Your task to perform on an android device: turn off translation in the chrome app Image 0: 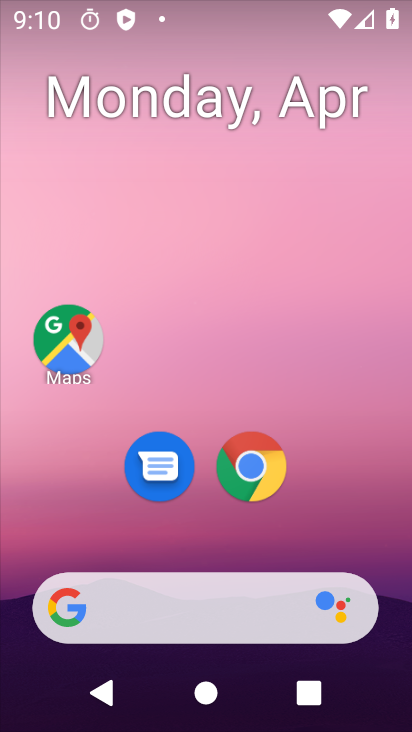
Step 0: drag from (201, 526) to (194, 6)
Your task to perform on an android device: turn off translation in the chrome app Image 1: 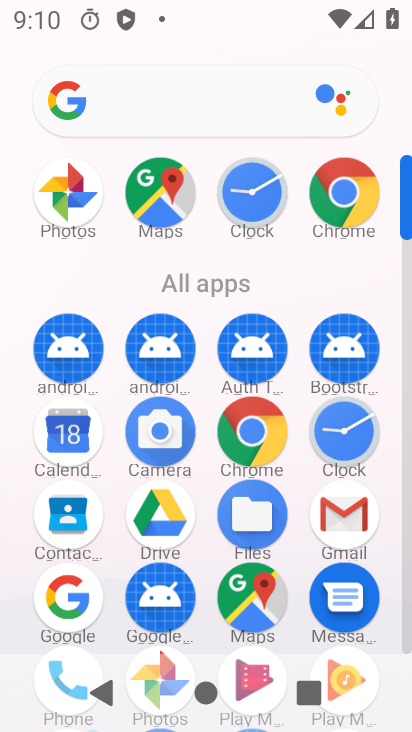
Step 1: click (338, 199)
Your task to perform on an android device: turn off translation in the chrome app Image 2: 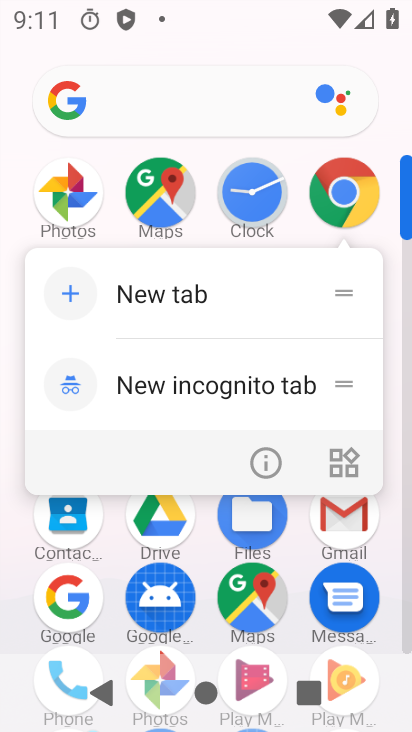
Step 2: click (332, 186)
Your task to perform on an android device: turn off translation in the chrome app Image 3: 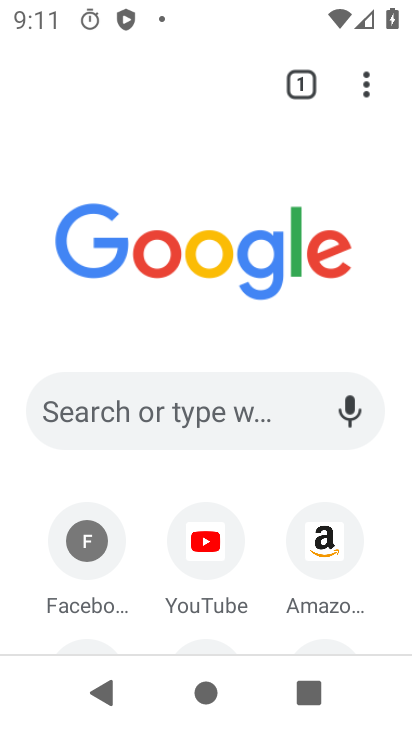
Step 3: click (356, 90)
Your task to perform on an android device: turn off translation in the chrome app Image 4: 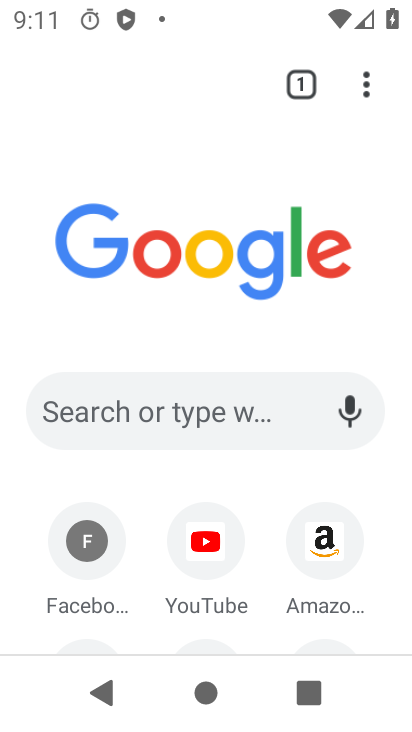
Step 4: click (372, 83)
Your task to perform on an android device: turn off translation in the chrome app Image 5: 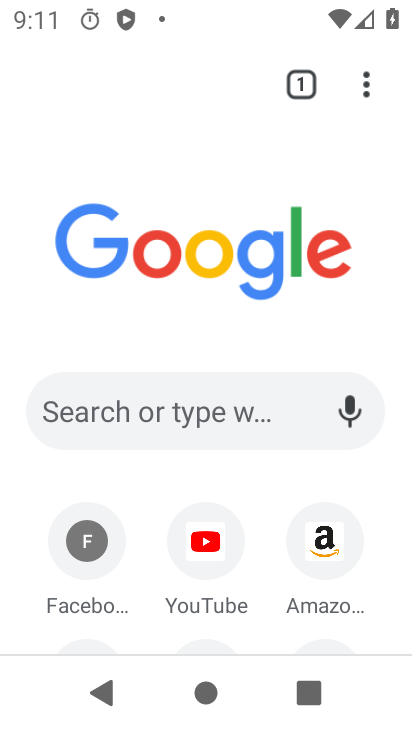
Step 5: click (361, 94)
Your task to perform on an android device: turn off translation in the chrome app Image 6: 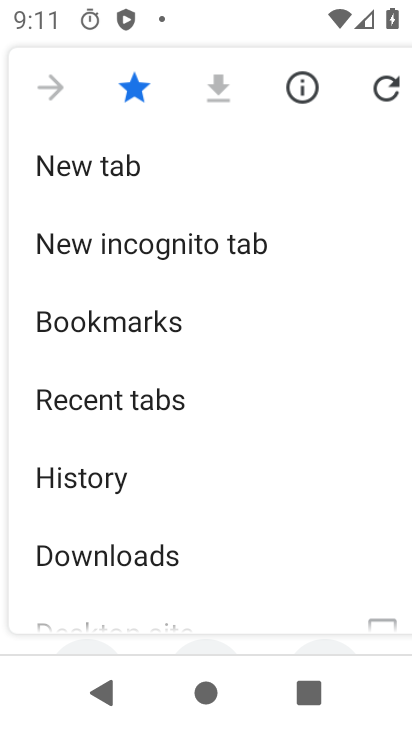
Step 6: drag from (207, 539) to (181, 55)
Your task to perform on an android device: turn off translation in the chrome app Image 7: 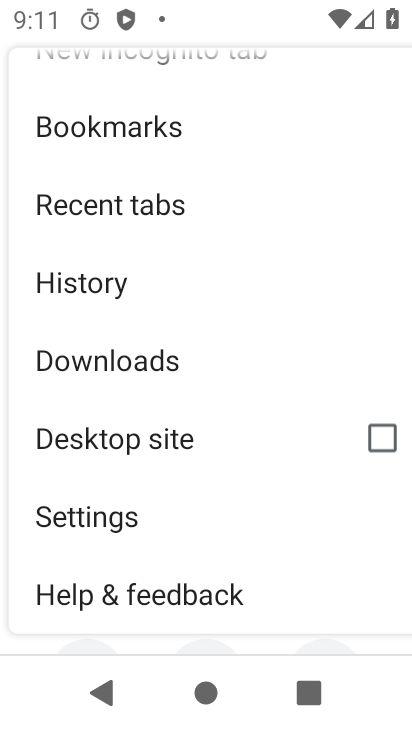
Step 7: click (118, 531)
Your task to perform on an android device: turn off translation in the chrome app Image 8: 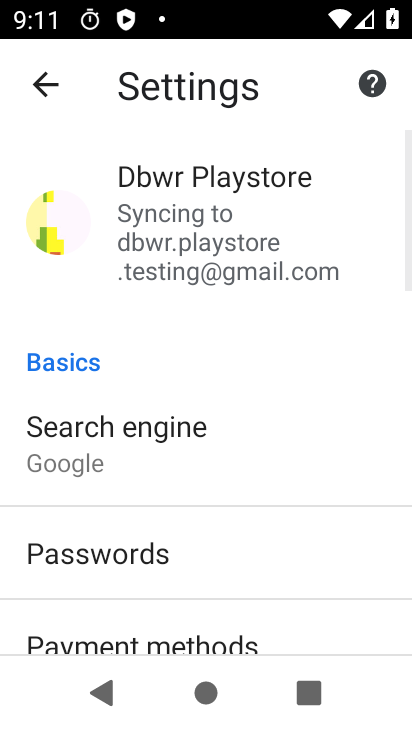
Step 8: drag from (192, 544) to (177, 91)
Your task to perform on an android device: turn off translation in the chrome app Image 9: 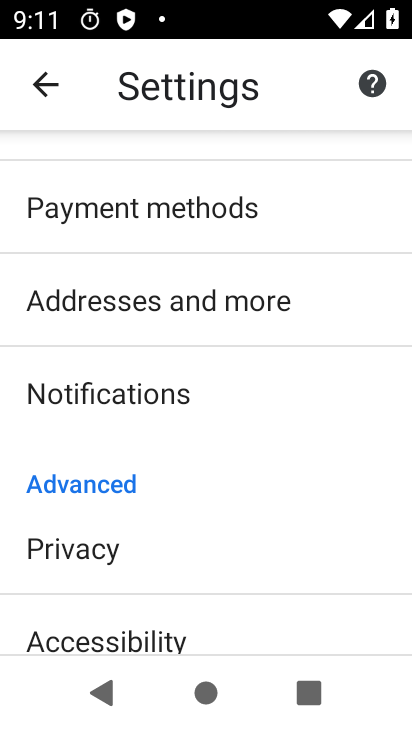
Step 9: click (203, 516)
Your task to perform on an android device: turn off translation in the chrome app Image 10: 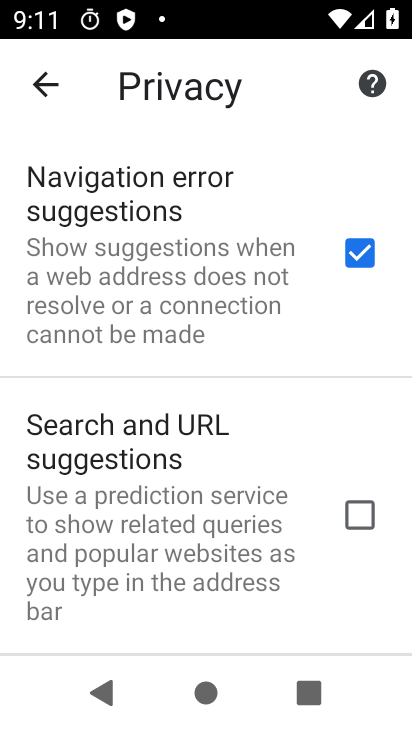
Step 10: drag from (191, 541) to (142, 89)
Your task to perform on an android device: turn off translation in the chrome app Image 11: 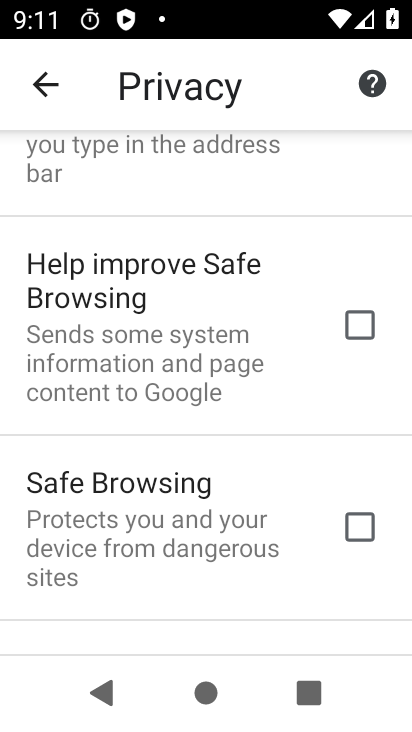
Step 11: click (43, 83)
Your task to perform on an android device: turn off translation in the chrome app Image 12: 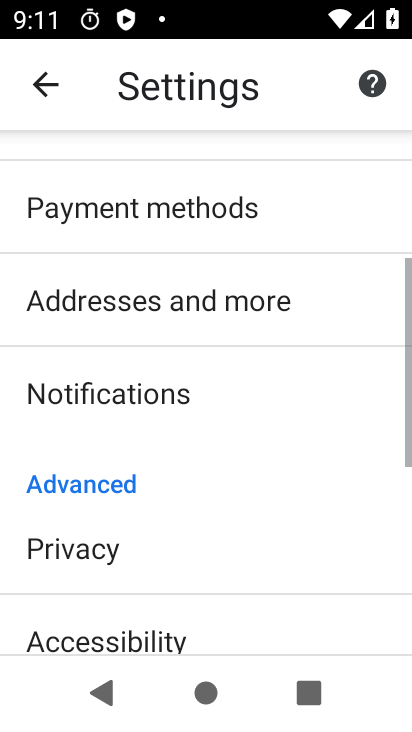
Step 12: drag from (187, 542) to (141, 188)
Your task to perform on an android device: turn off translation in the chrome app Image 13: 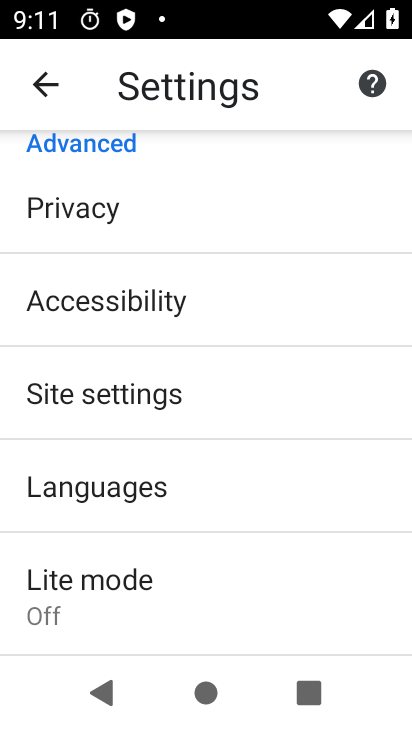
Step 13: click (115, 458)
Your task to perform on an android device: turn off translation in the chrome app Image 14: 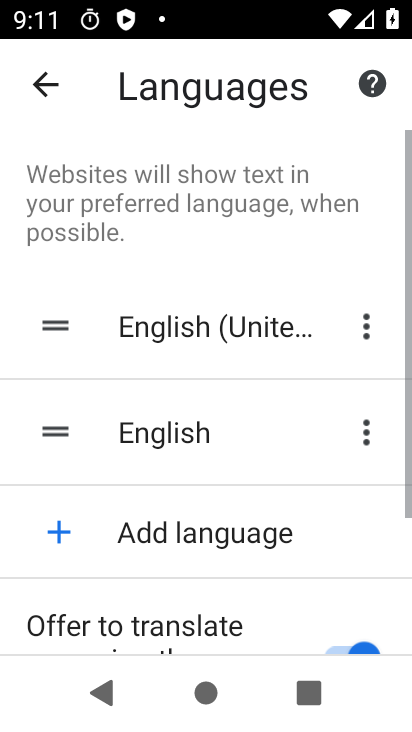
Step 14: drag from (166, 570) to (129, 156)
Your task to perform on an android device: turn off translation in the chrome app Image 15: 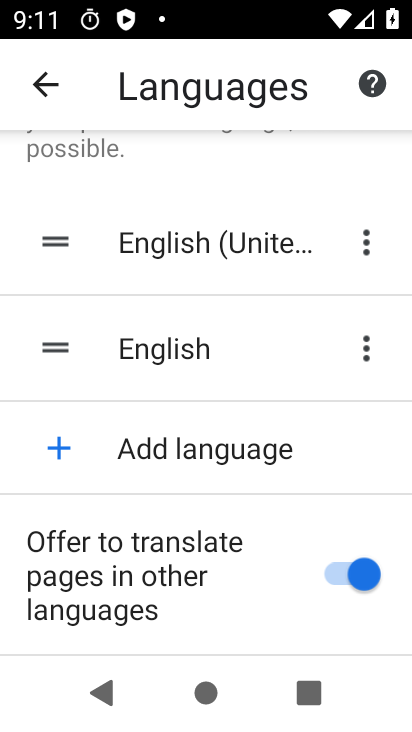
Step 15: click (348, 566)
Your task to perform on an android device: turn off translation in the chrome app Image 16: 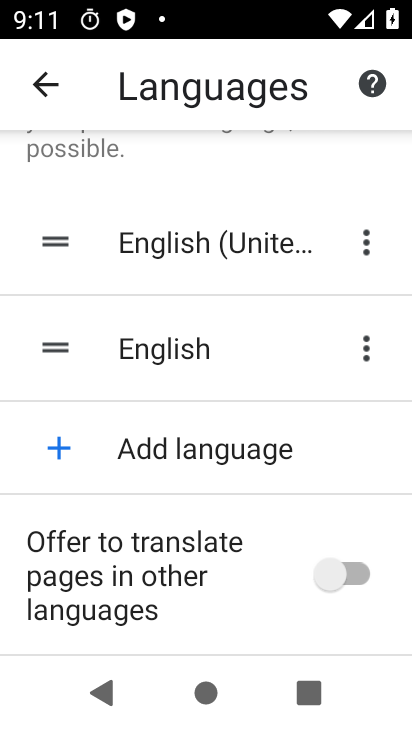
Step 16: task complete